Your task to perform on an android device: turn notification dots off Image 0: 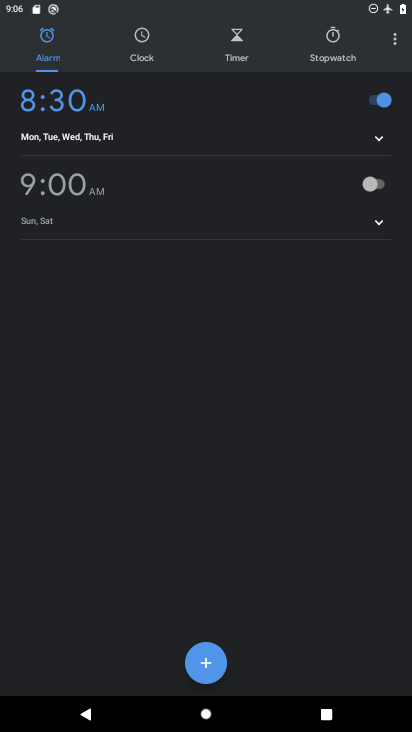
Step 0: press home button
Your task to perform on an android device: turn notification dots off Image 1: 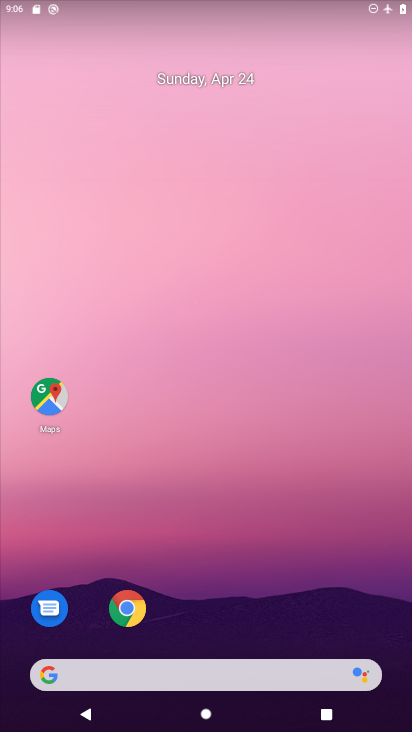
Step 1: drag from (198, 605) to (199, 101)
Your task to perform on an android device: turn notification dots off Image 2: 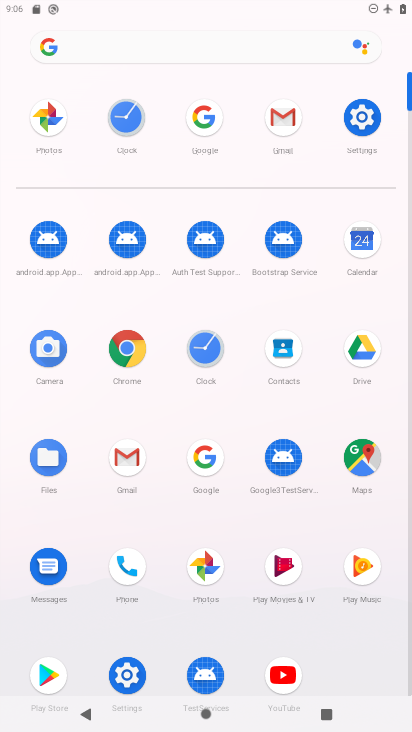
Step 2: click (357, 130)
Your task to perform on an android device: turn notification dots off Image 3: 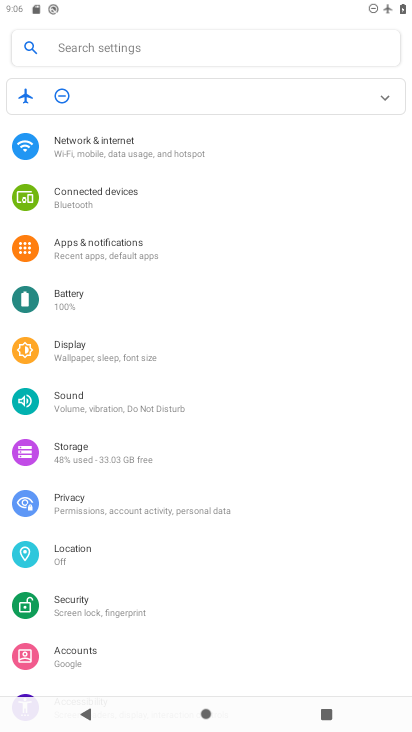
Step 3: click (127, 249)
Your task to perform on an android device: turn notification dots off Image 4: 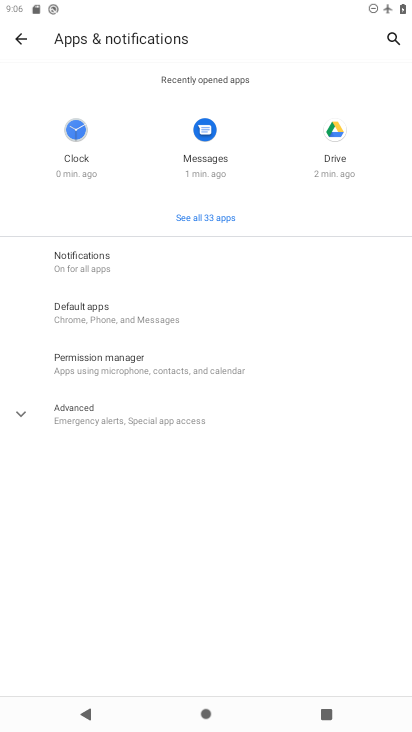
Step 4: click (125, 268)
Your task to perform on an android device: turn notification dots off Image 5: 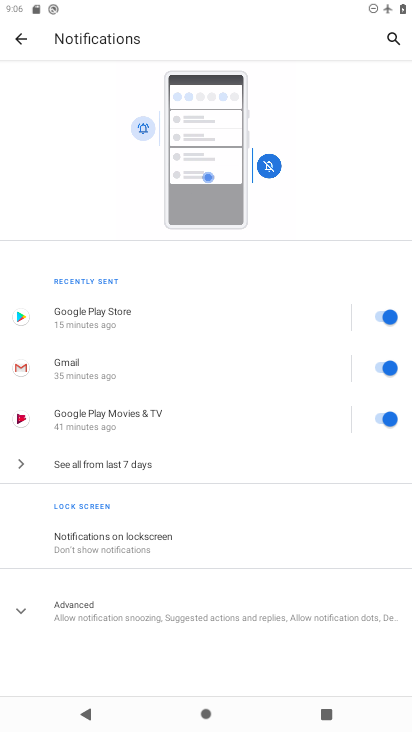
Step 5: drag from (226, 600) to (240, 371)
Your task to perform on an android device: turn notification dots off Image 6: 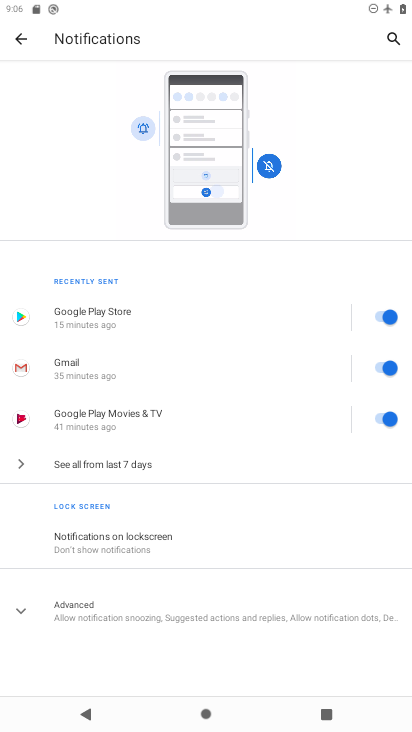
Step 6: click (155, 607)
Your task to perform on an android device: turn notification dots off Image 7: 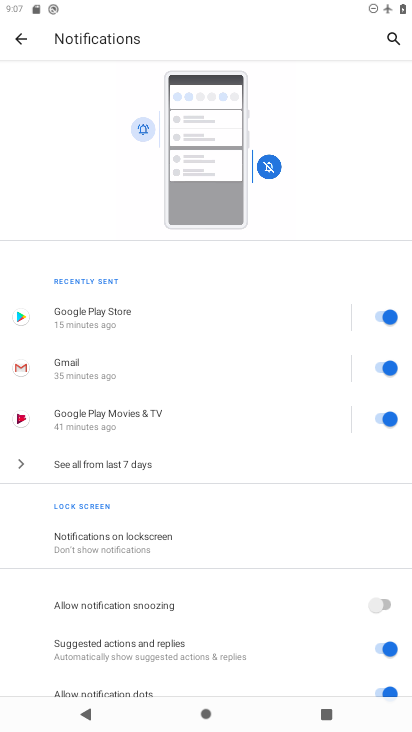
Step 7: drag from (207, 613) to (233, 322)
Your task to perform on an android device: turn notification dots off Image 8: 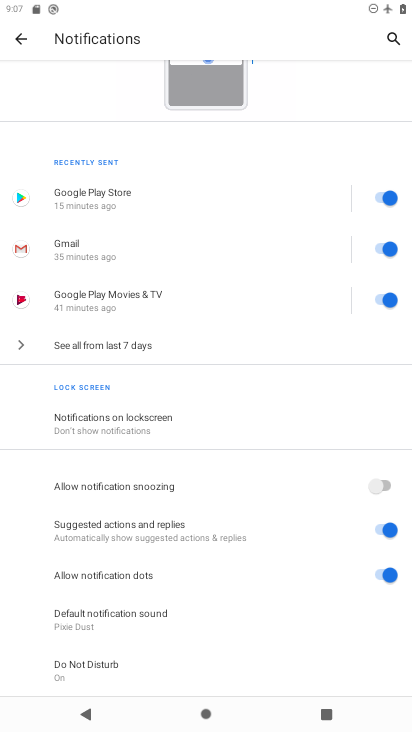
Step 8: click (376, 570)
Your task to perform on an android device: turn notification dots off Image 9: 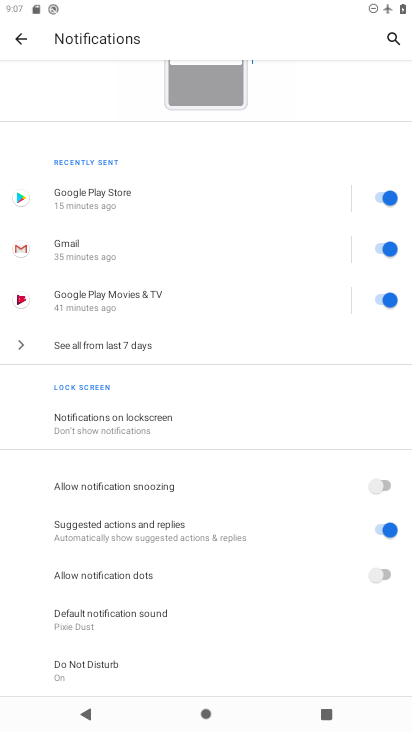
Step 9: task complete